Your task to perform on an android device: change the upload size in google photos Image 0: 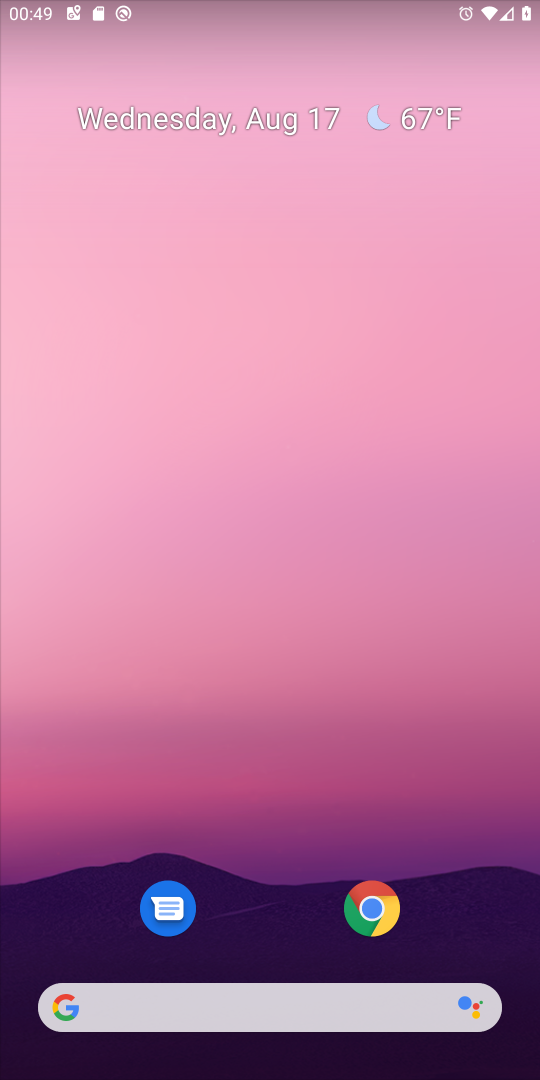
Step 0: drag from (251, 888) to (253, 306)
Your task to perform on an android device: change the upload size in google photos Image 1: 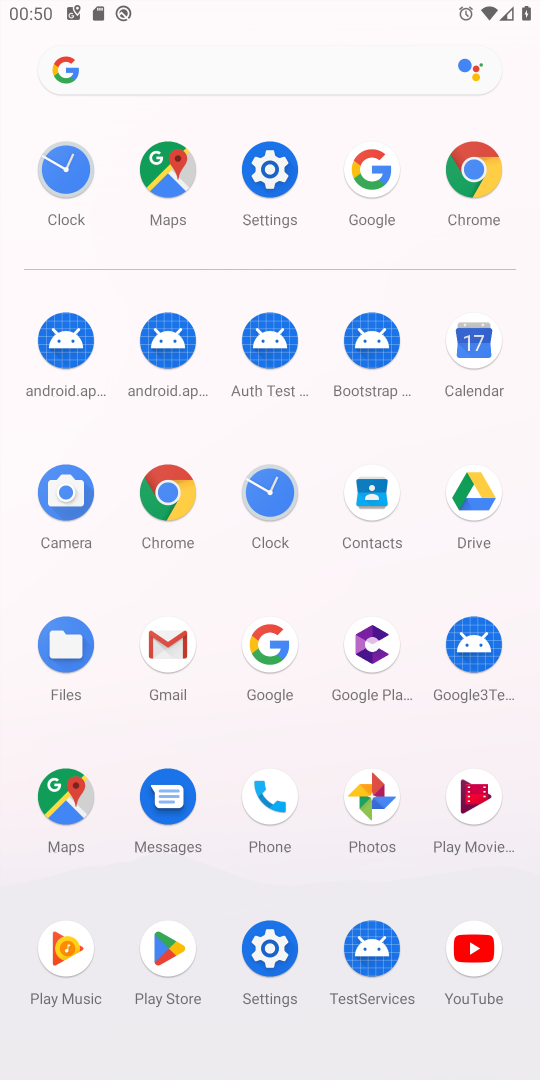
Step 1: click (365, 813)
Your task to perform on an android device: change the upload size in google photos Image 2: 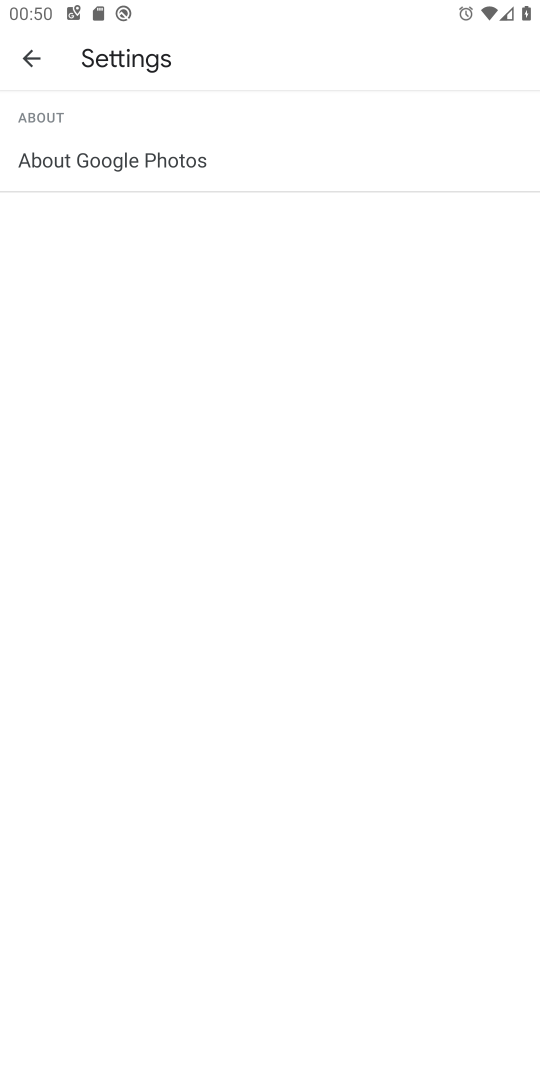
Step 2: click (30, 61)
Your task to perform on an android device: change the upload size in google photos Image 3: 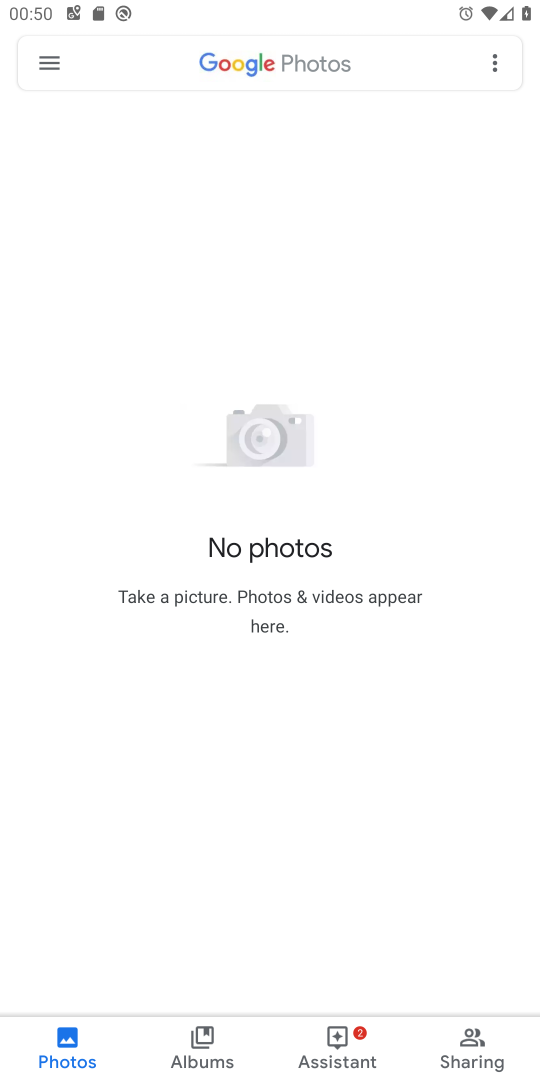
Step 3: click (38, 66)
Your task to perform on an android device: change the upload size in google photos Image 4: 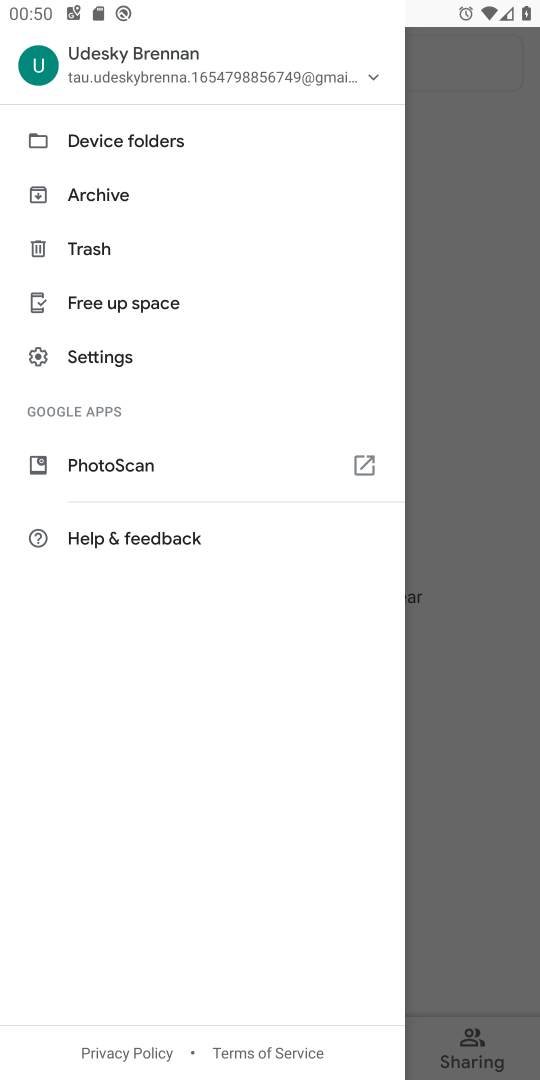
Step 4: click (137, 354)
Your task to perform on an android device: change the upload size in google photos Image 5: 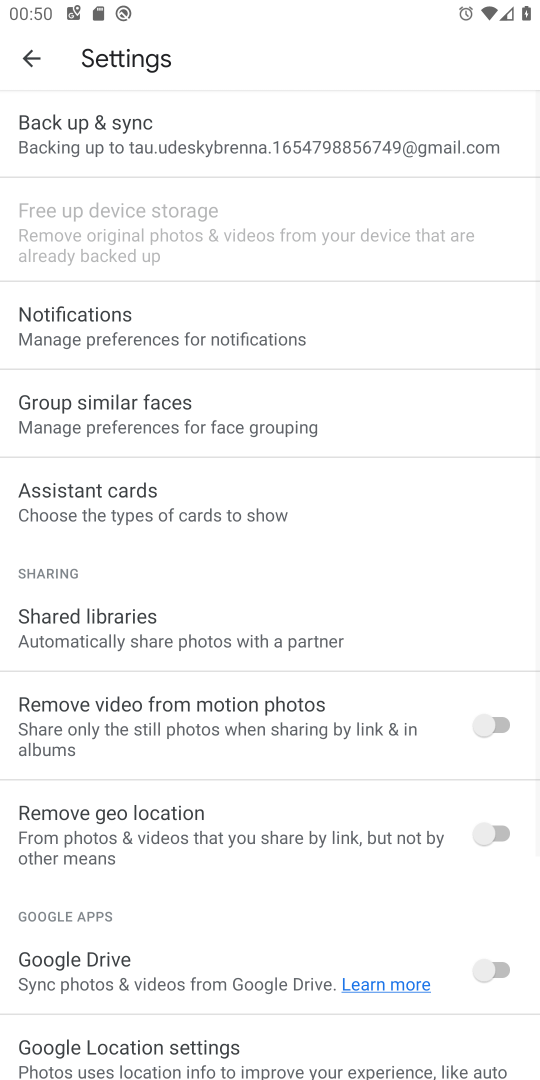
Step 5: click (144, 150)
Your task to perform on an android device: change the upload size in google photos Image 6: 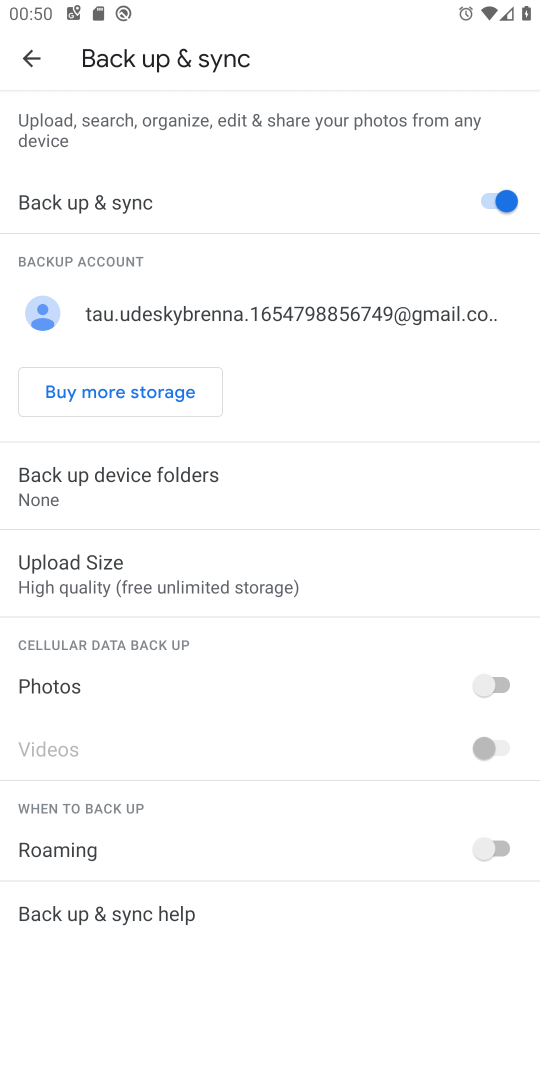
Step 6: click (145, 589)
Your task to perform on an android device: change the upload size in google photos Image 7: 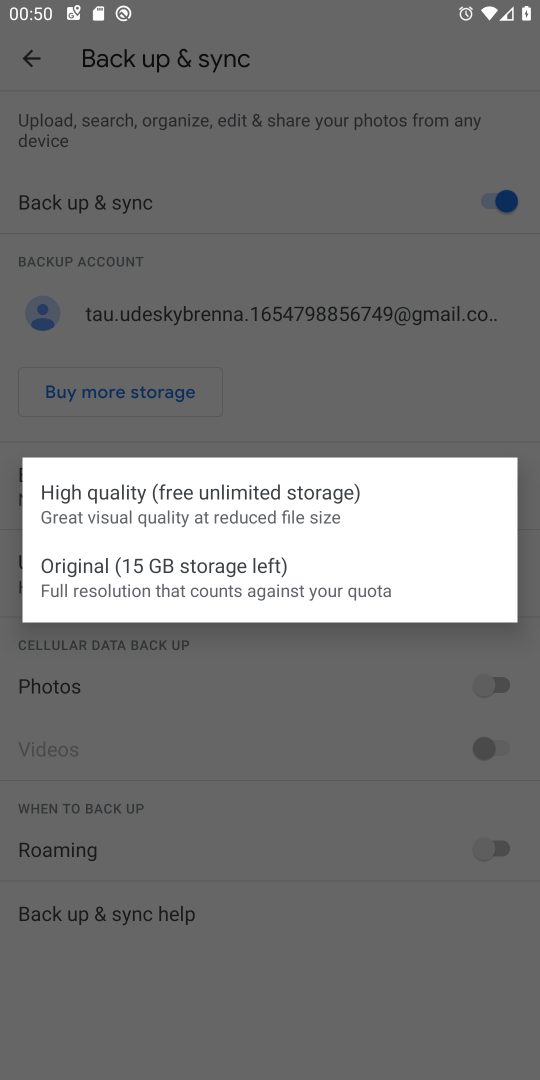
Step 7: click (147, 587)
Your task to perform on an android device: change the upload size in google photos Image 8: 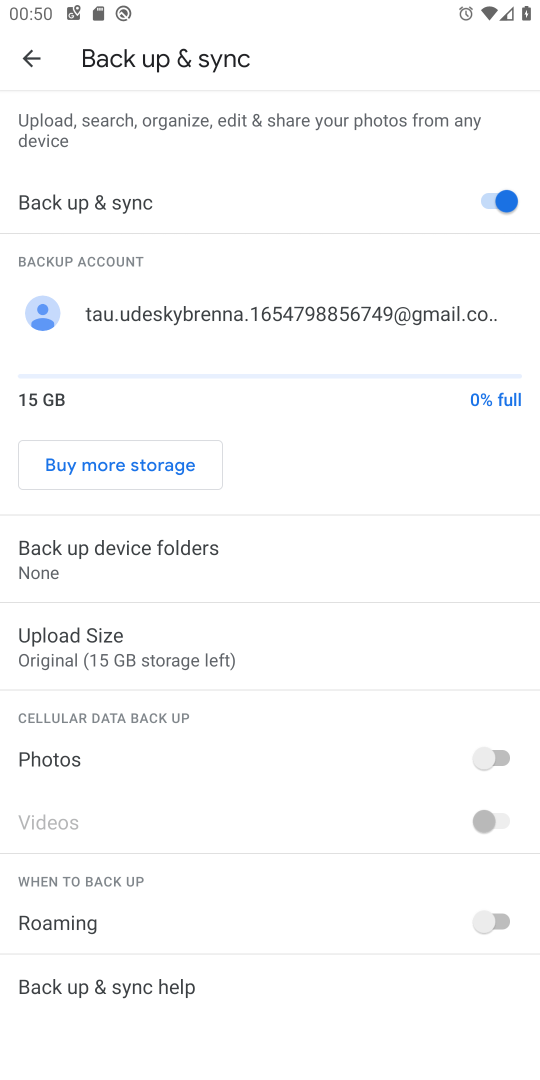
Step 8: task complete